Your task to perform on an android device: see sites visited before in the chrome app Image 0: 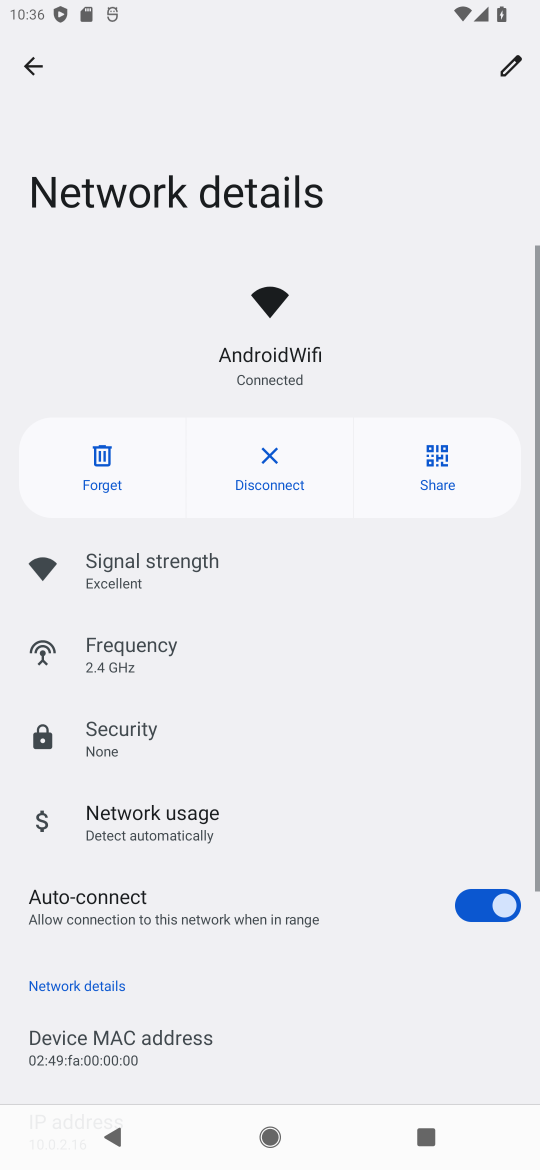
Step 0: press home button
Your task to perform on an android device: see sites visited before in the chrome app Image 1: 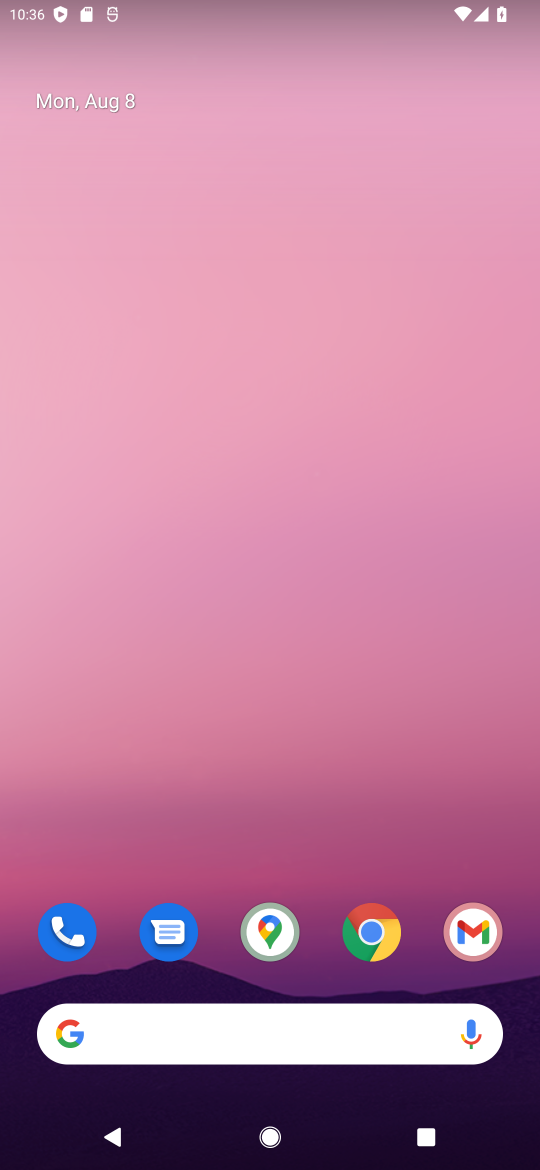
Step 1: click (338, 943)
Your task to perform on an android device: see sites visited before in the chrome app Image 2: 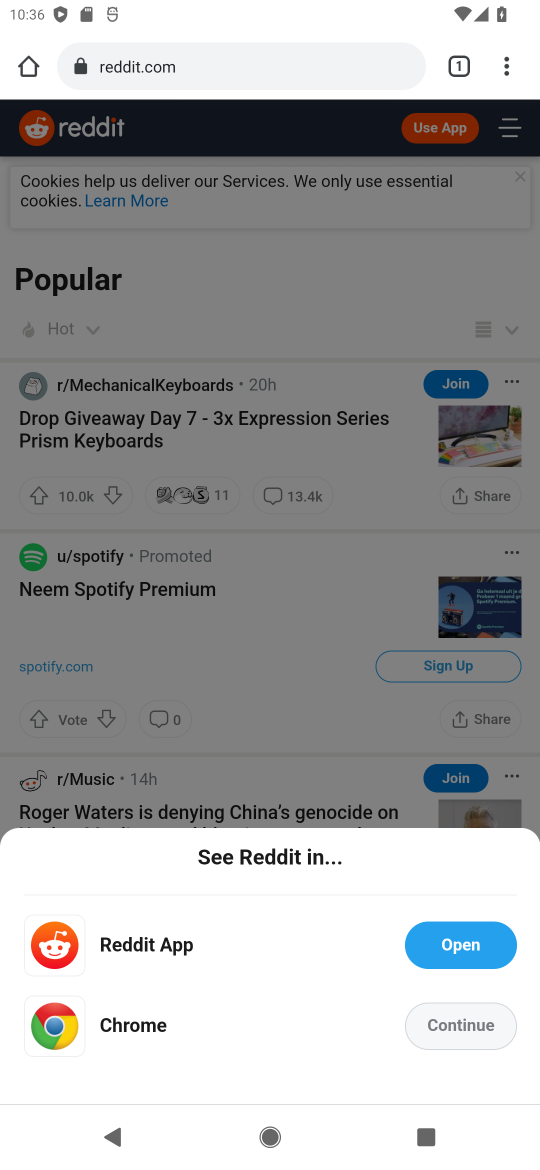
Step 2: click (525, 73)
Your task to perform on an android device: see sites visited before in the chrome app Image 3: 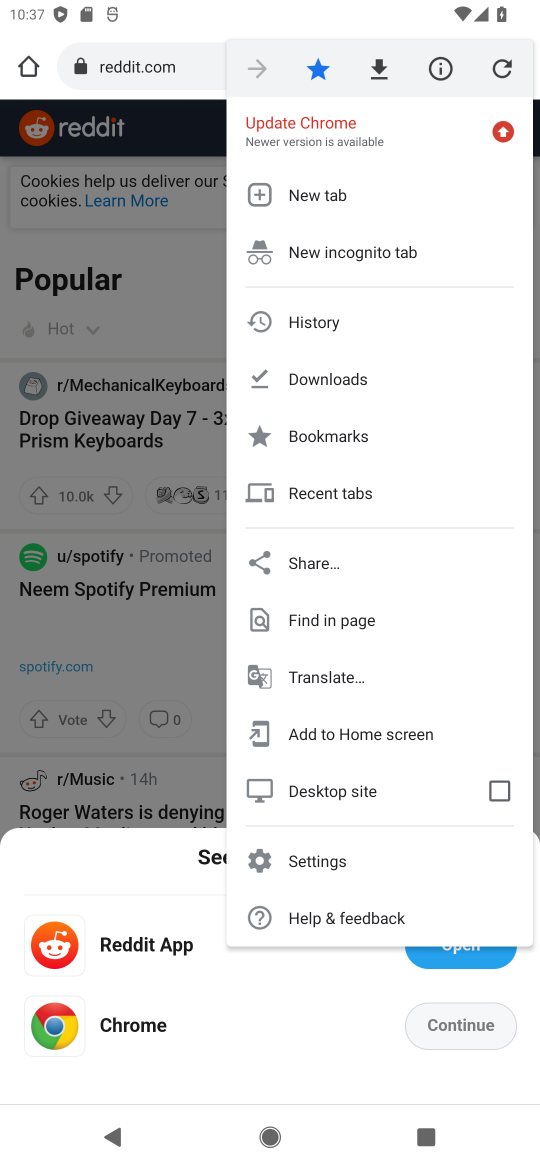
Step 3: click (356, 835)
Your task to perform on an android device: see sites visited before in the chrome app Image 4: 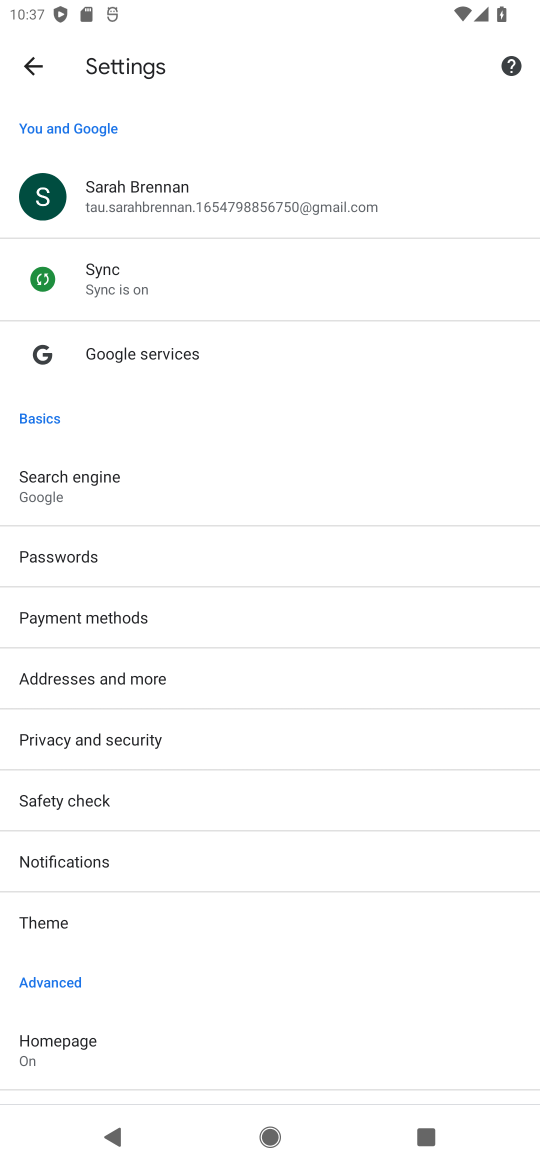
Step 4: click (32, 49)
Your task to perform on an android device: see sites visited before in the chrome app Image 5: 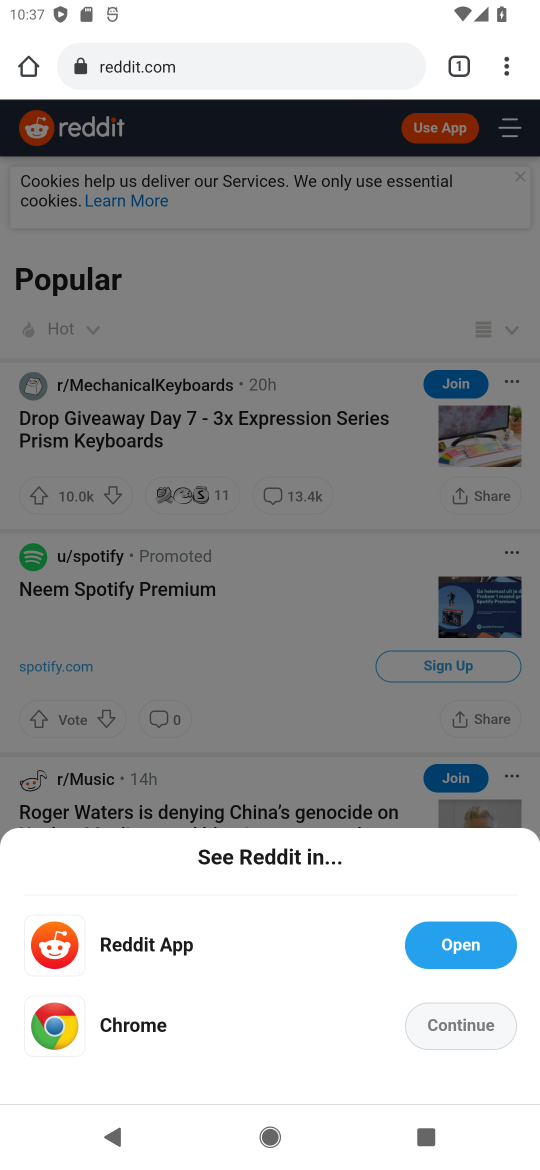
Step 5: click (516, 81)
Your task to perform on an android device: see sites visited before in the chrome app Image 6: 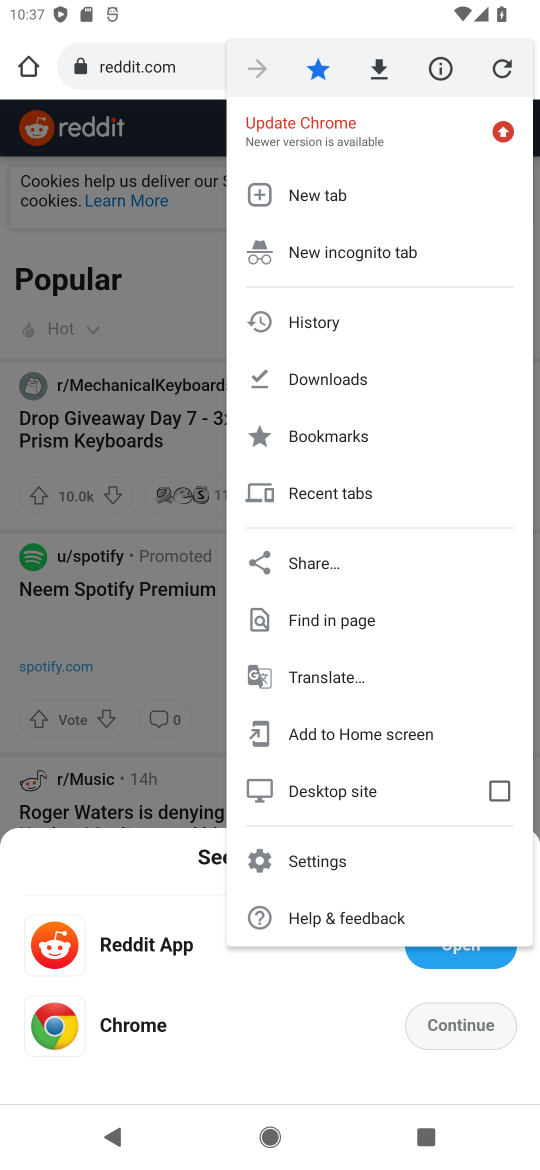
Step 6: click (427, 323)
Your task to perform on an android device: see sites visited before in the chrome app Image 7: 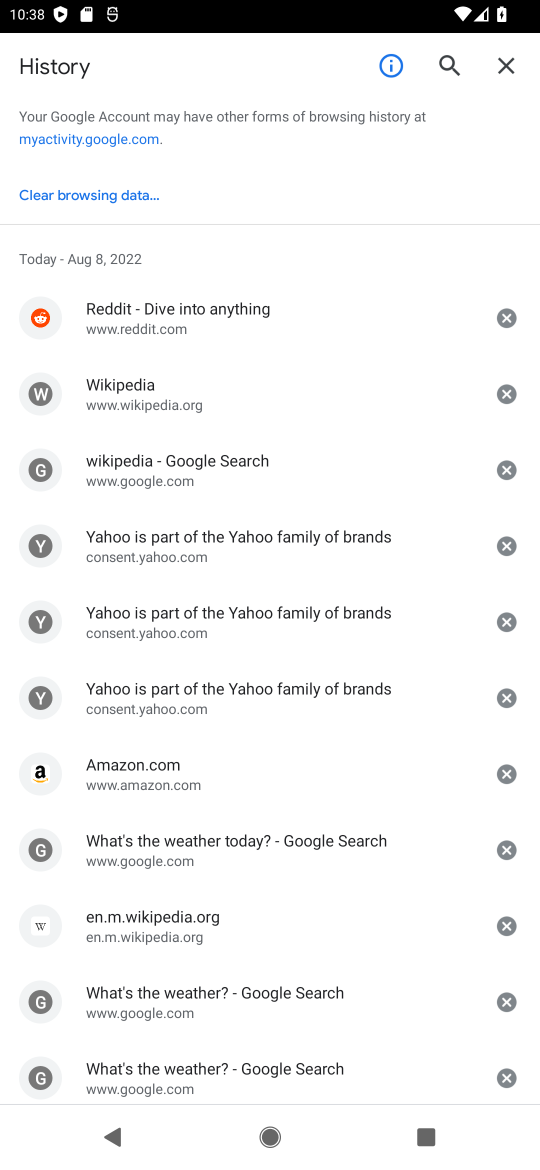
Step 7: task complete